Your task to perform on an android device: Find coffee shops on Maps Image 0: 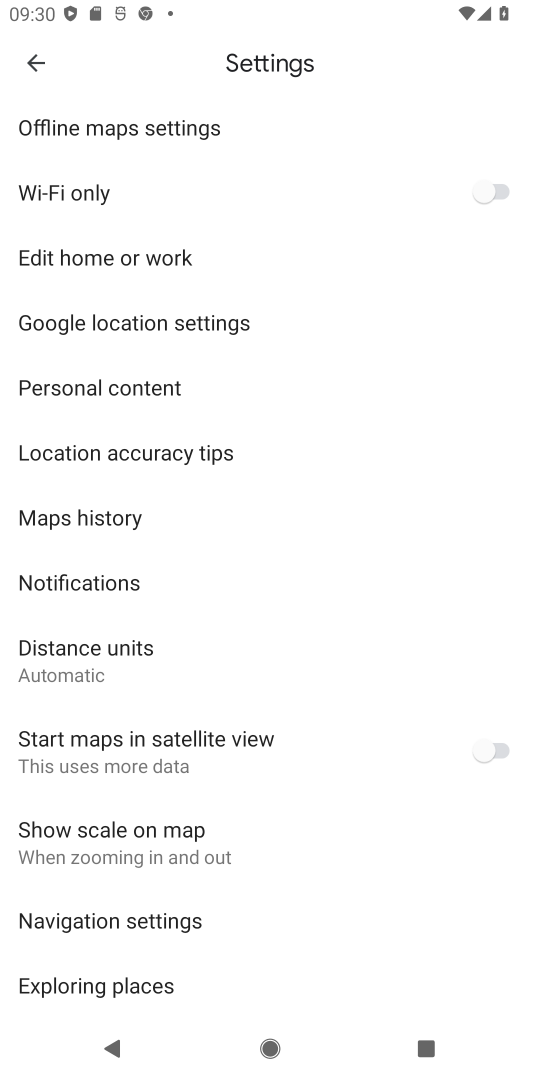
Step 0: press home button
Your task to perform on an android device: Find coffee shops on Maps Image 1: 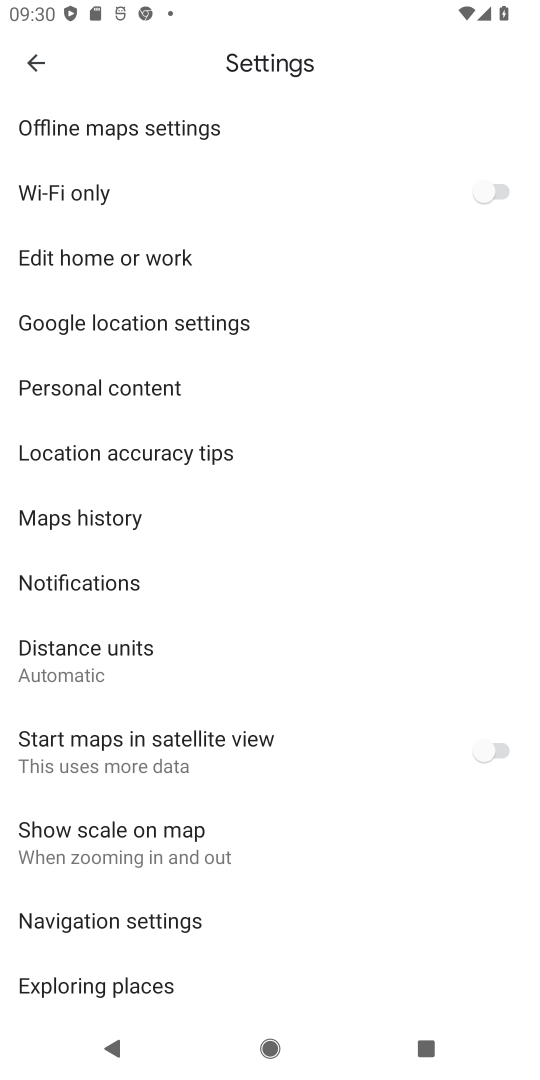
Step 1: press home button
Your task to perform on an android device: Find coffee shops on Maps Image 2: 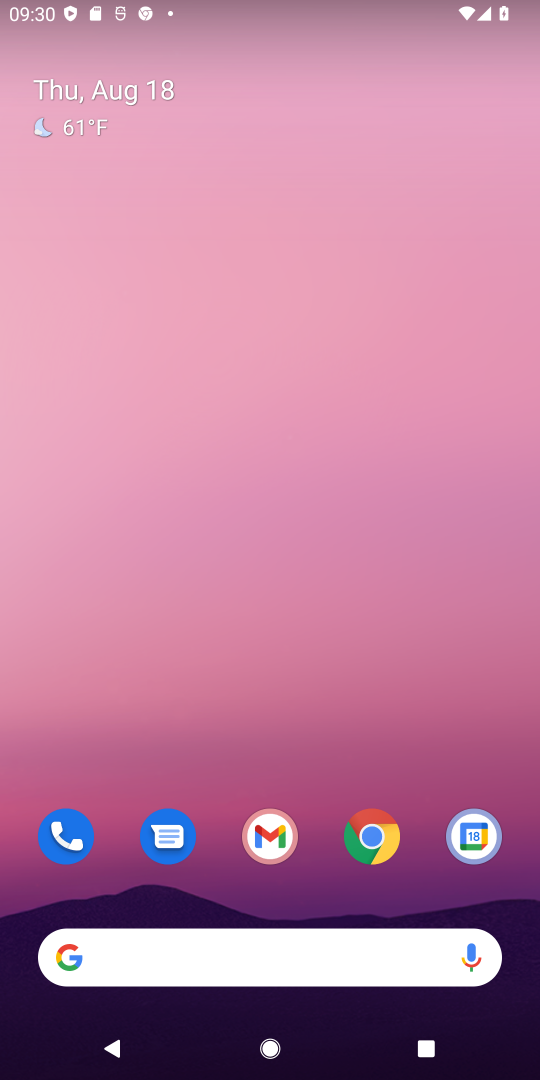
Step 2: drag from (348, 746) to (433, 36)
Your task to perform on an android device: Find coffee shops on Maps Image 3: 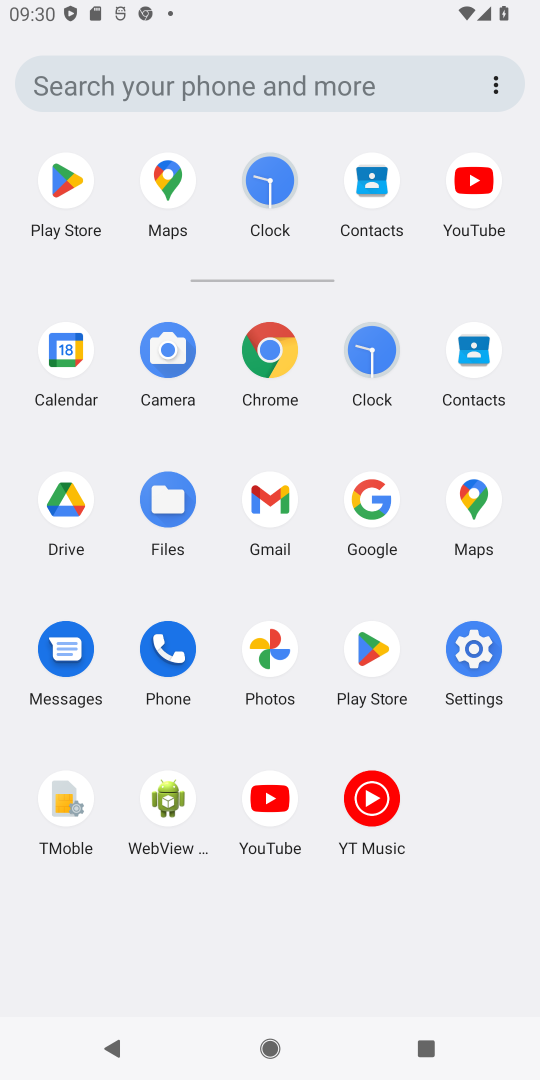
Step 3: click (460, 496)
Your task to perform on an android device: Find coffee shops on Maps Image 4: 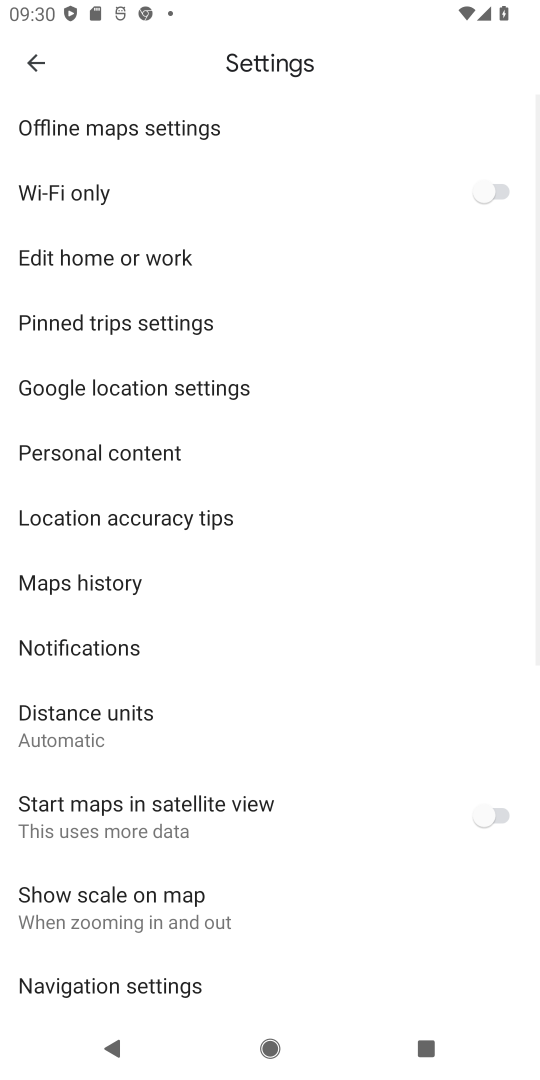
Step 4: click (39, 55)
Your task to perform on an android device: Find coffee shops on Maps Image 5: 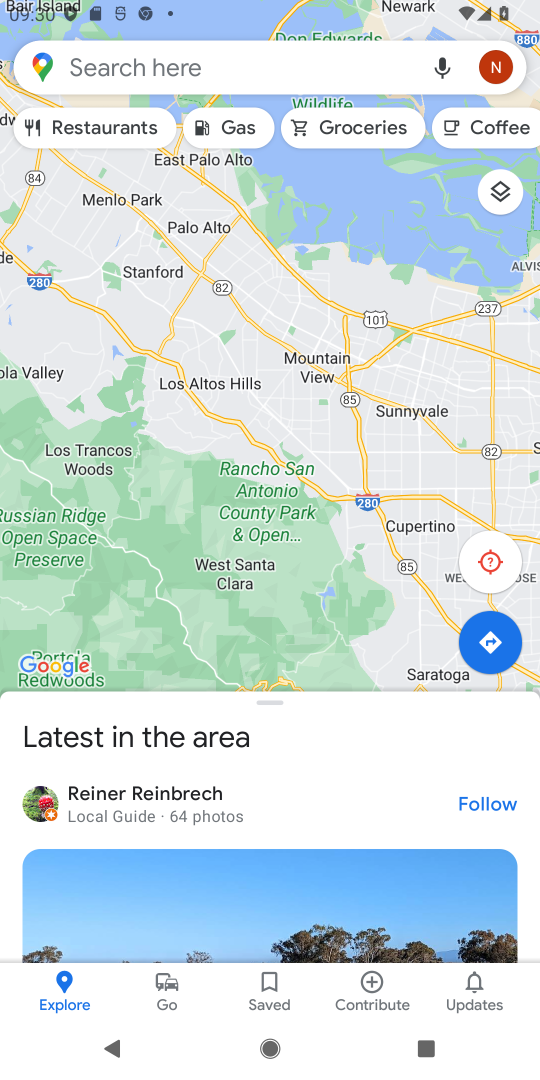
Step 5: click (226, 65)
Your task to perform on an android device: Find coffee shops on Maps Image 6: 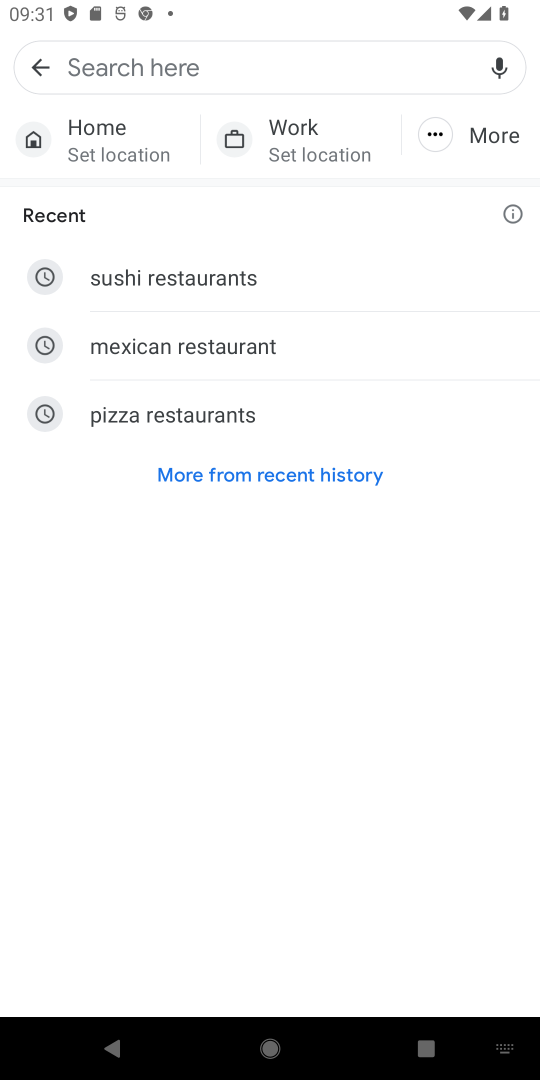
Step 6: type "coffee shops"
Your task to perform on an android device: Find coffee shops on Maps Image 7: 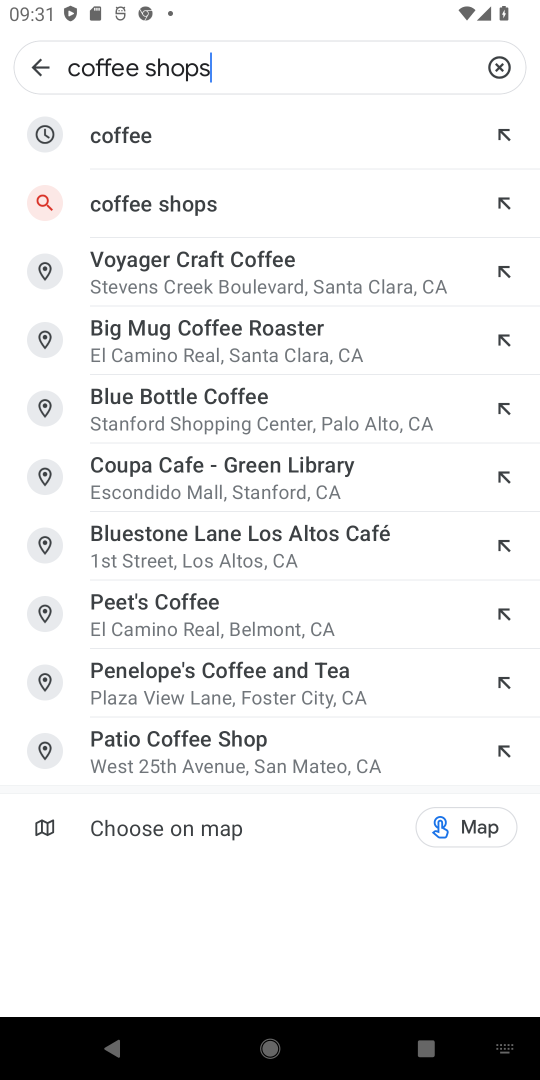
Step 7: press enter
Your task to perform on an android device: Find coffee shops on Maps Image 8: 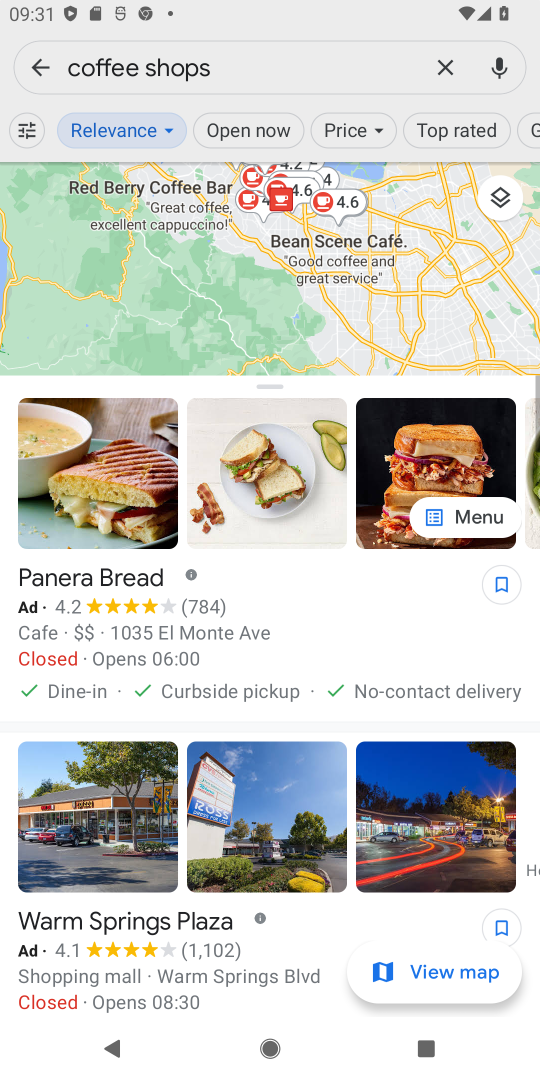
Step 8: task complete